Your task to perform on an android device: all mails in gmail Image 0: 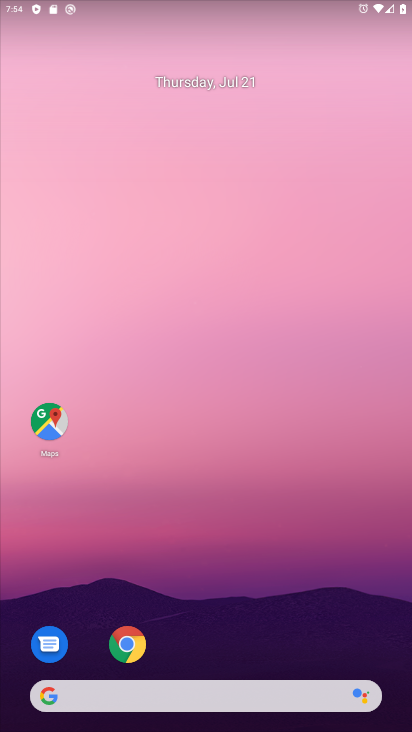
Step 0: drag from (363, 630) to (366, 130)
Your task to perform on an android device: all mails in gmail Image 1: 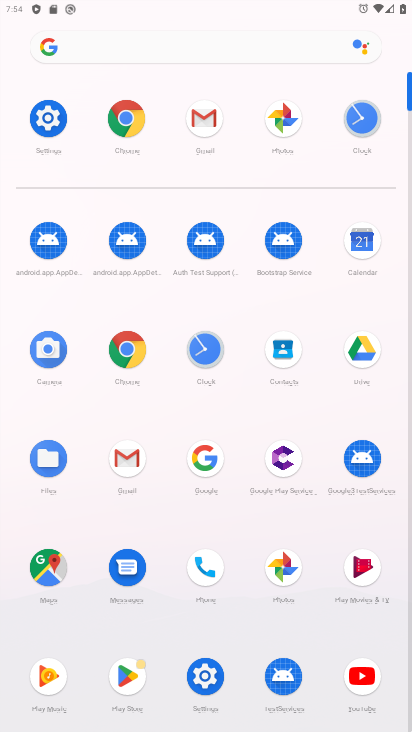
Step 1: click (208, 119)
Your task to perform on an android device: all mails in gmail Image 2: 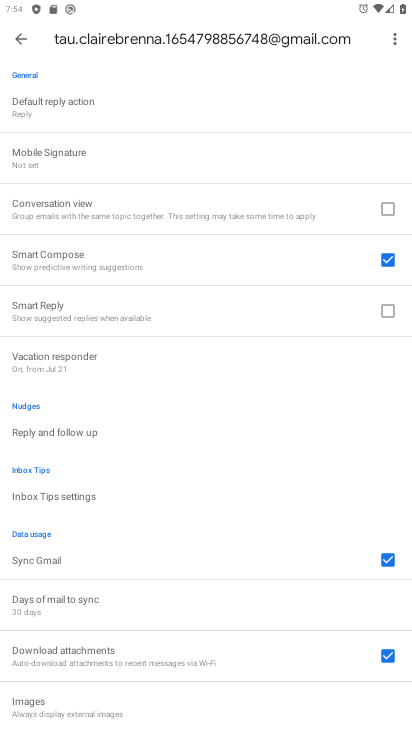
Step 2: press back button
Your task to perform on an android device: all mails in gmail Image 3: 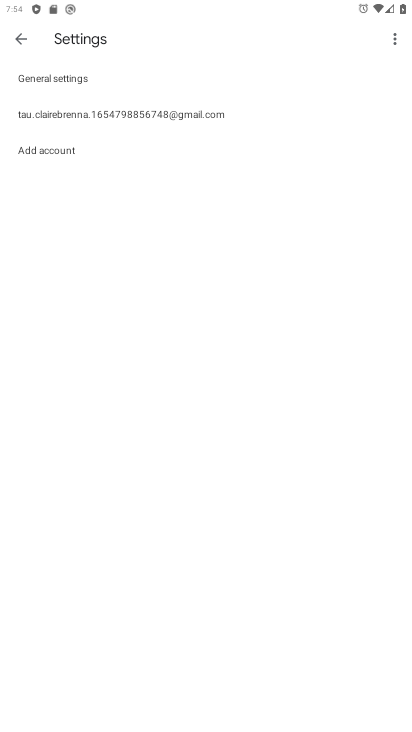
Step 3: press back button
Your task to perform on an android device: all mails in gmail Image 4: 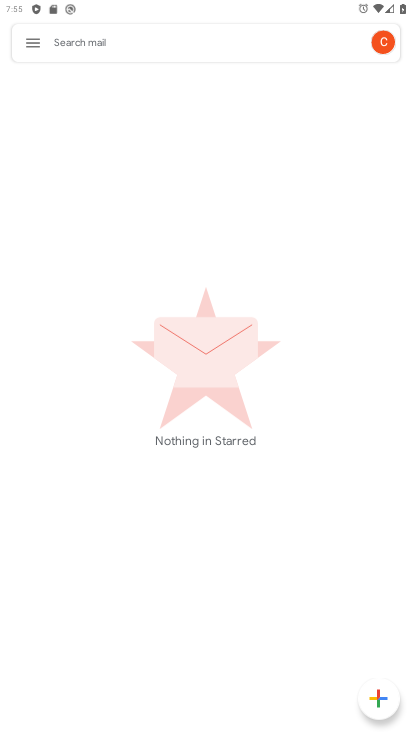
Step 4: click (33, 43)
Your task to perform on an android device: all mails in gmail Image 5: 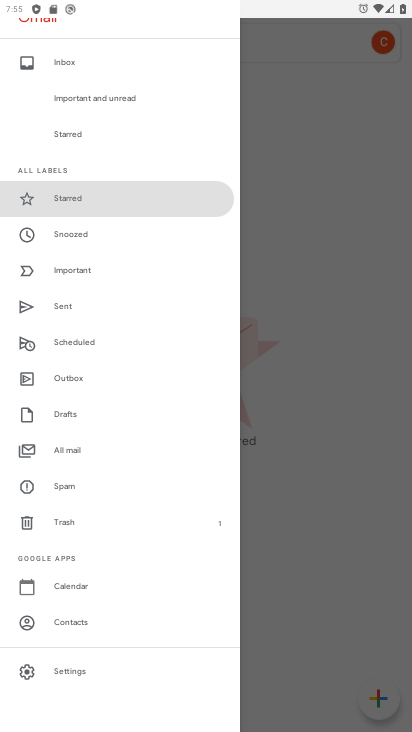
Step 5: click (75, 454)
Your task to perform on an android device: all mails in gmail Image 6: 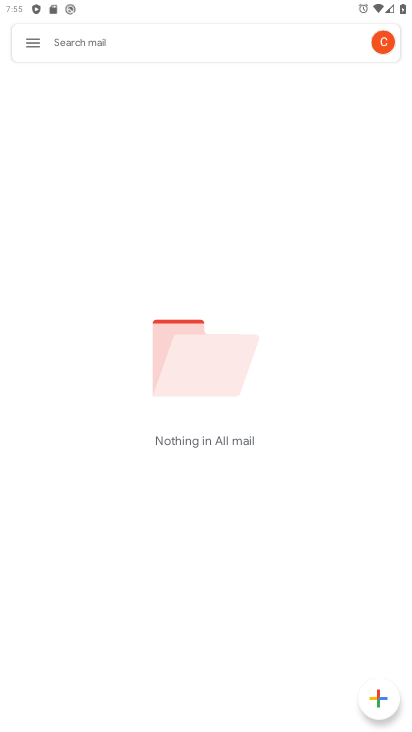
Step 6: task complete